Your task to perform on an android device: Toggle the flashlight Image 0: 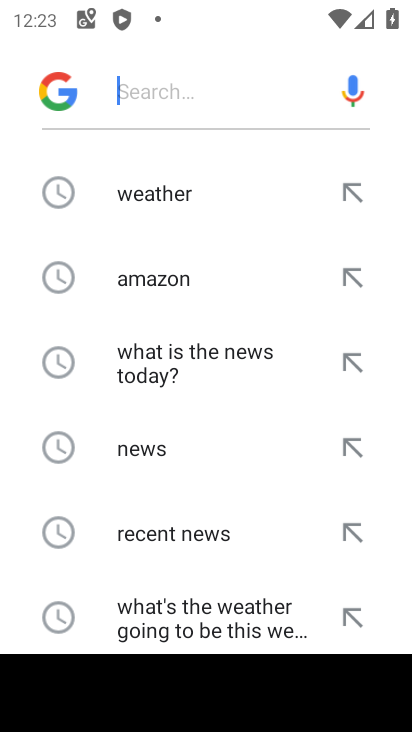
Step 0: drag from (314, 2) to (376, 621)
Your task to perform on an android device: Toggle the flashlight Image 1: 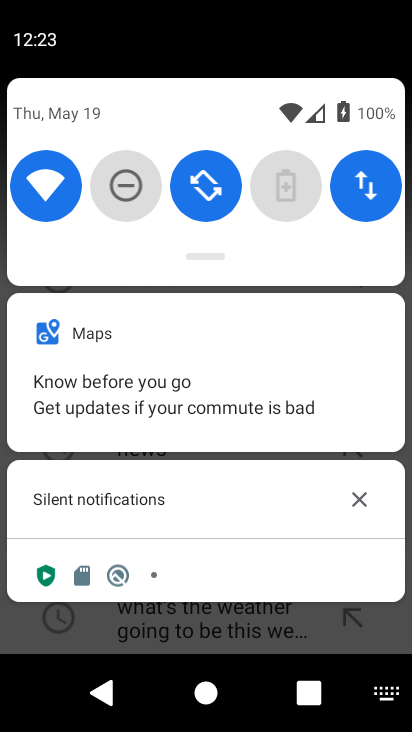
Step 1: task complete